Your task to perform on an android device: turn off javascript in the chrome app Image 0: 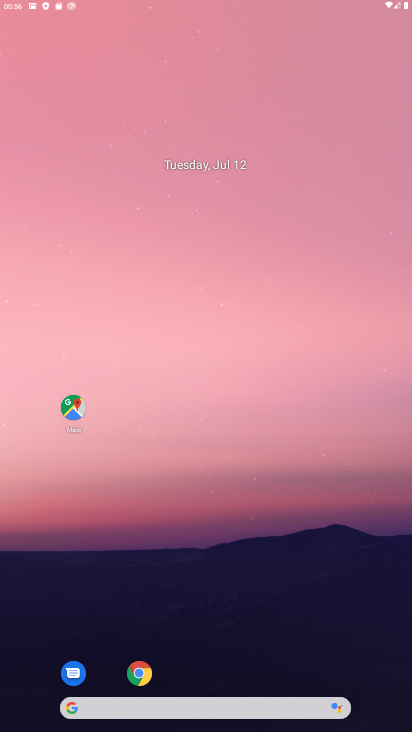
Step 0: press home button
Your task to perform on an android device: turn off javascript in the chrome app Image 1: 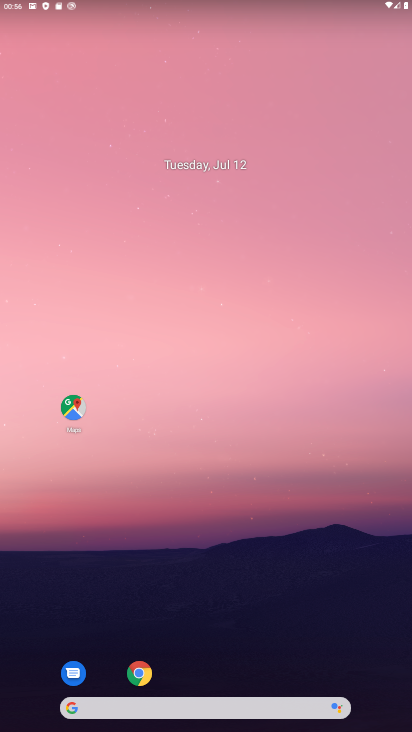
Step 1: click (135, 677)
Your task to perform on an android device: turn off javascript in the chrome app Image 2: 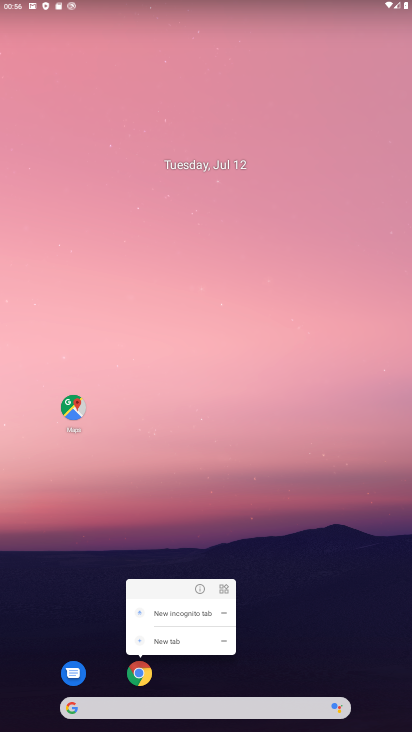
Step 2: click (141, 672)
Your task to perform on an android device: turn off javascript in the chrome app Image 3: 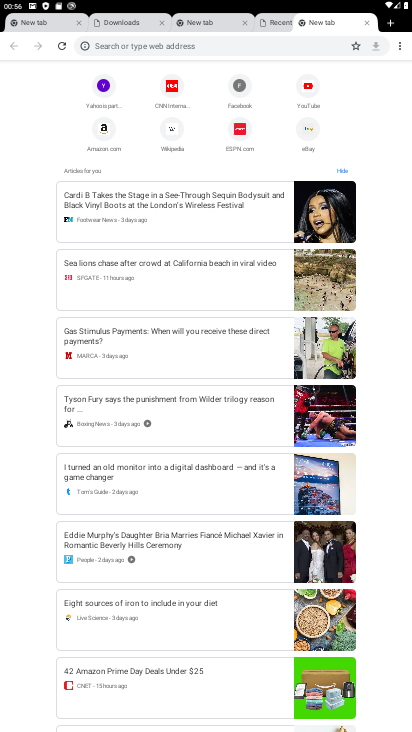
Step 3: drag from (399, 51) to (308, 214)
Your task to perform on an android device: turn off javascript in the chrome app Image 4: 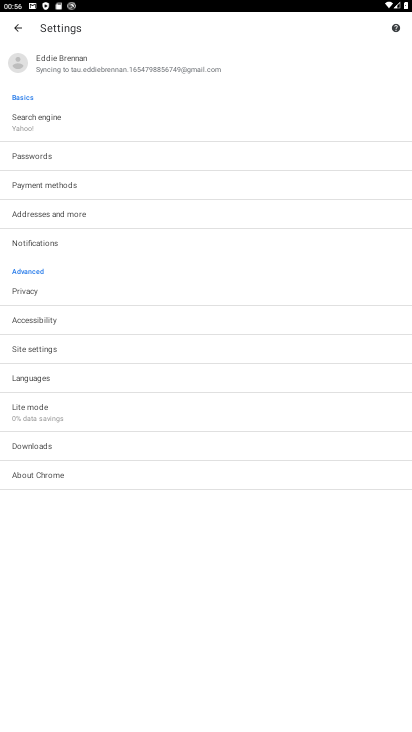
Step 4: click (31, 342)
Your task to perform on an android device: turn off javascript in the chrome app Image 5: 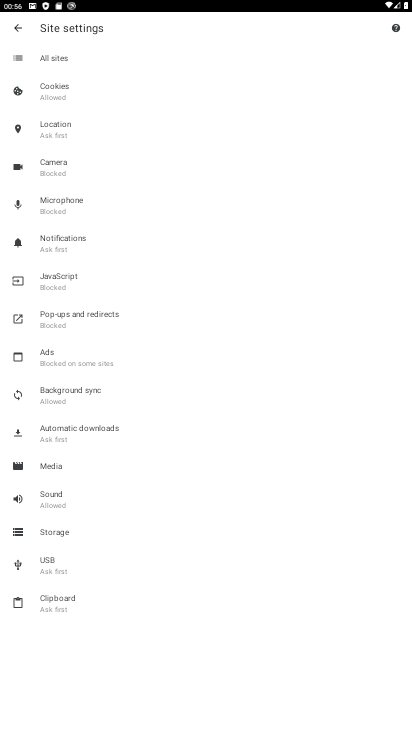
Step 5: click (66, 276)
Your task to perform on an android device: turn off javascript in the chrome app Image 6: 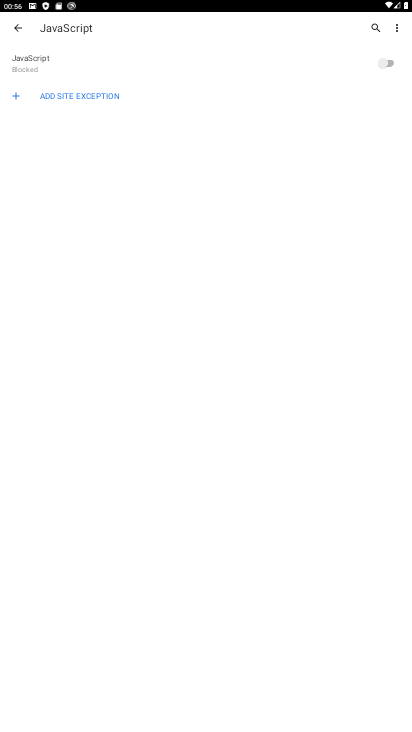
Step 6: task complete